Your task to perform on an android device: toggle location history Image 0: 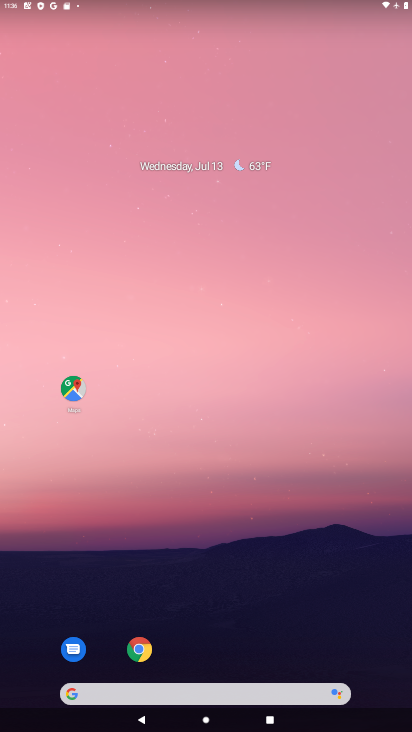
Step 0: drag from (231, 616) to (222, 208)
Your task to perform on an android device: toggle location history Image 1: 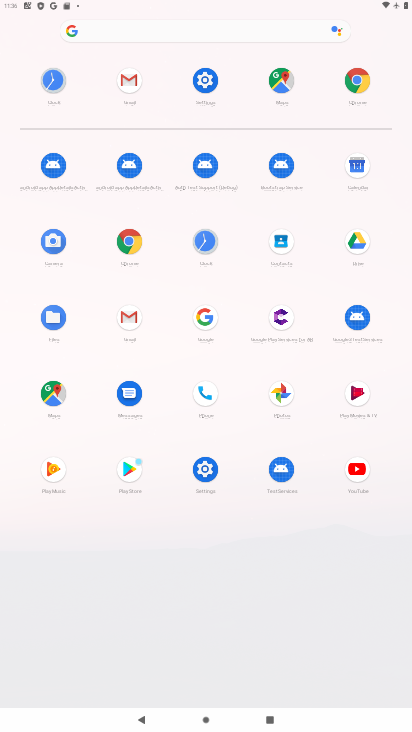
Step 1: click (193, 64)
Your task to perform on an android device: toggle location history Image 2: 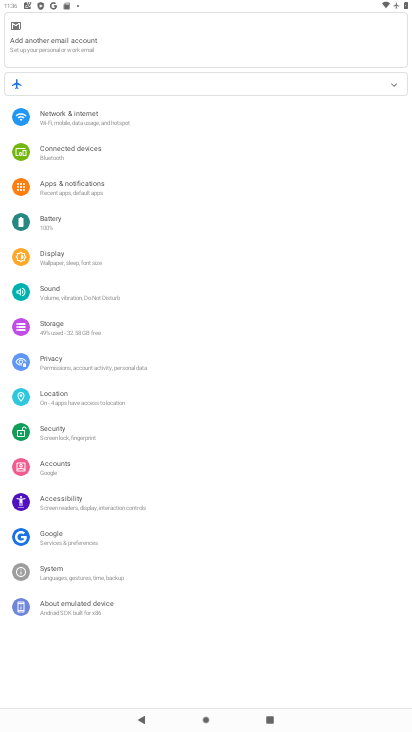
Step 2: click (86, 392)
Your task to perform on an android device: toggle location history Image 3: 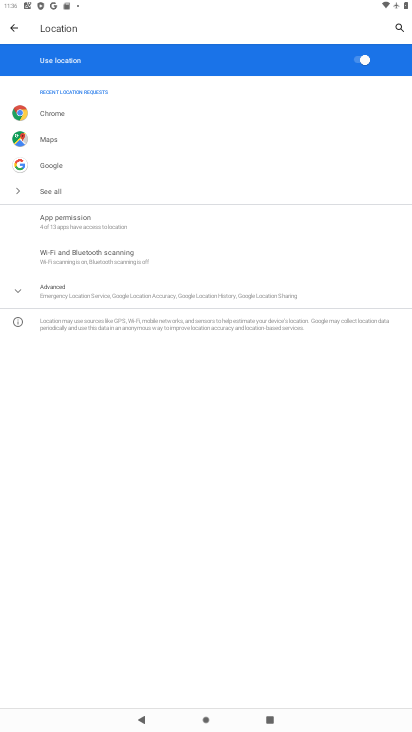
Step 3: click (134, 299)
Your task to perform on an android device: toggle location history Image 4: 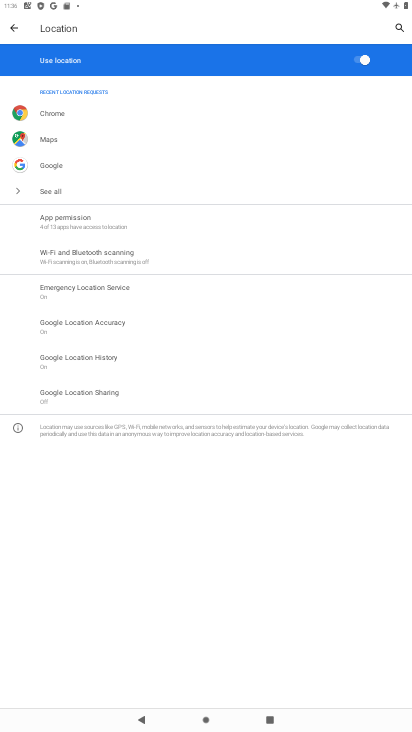
Step 4: click (124, 349)
Your task to perform on an android device: toggle location history Image 5: 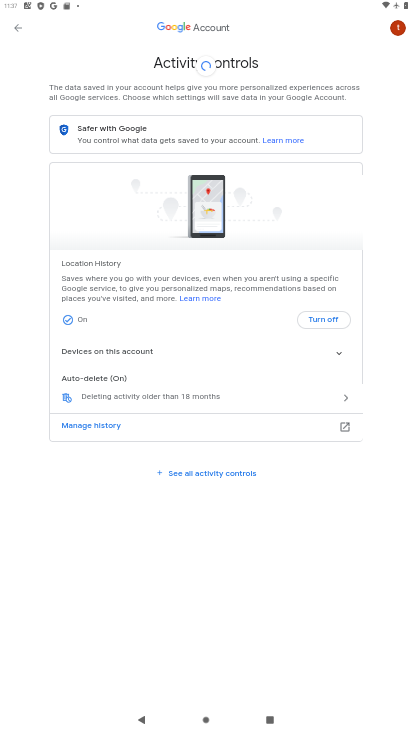
Step 5: click (317, 325)
Your task to perform on an android device: toggle location history Image 6: 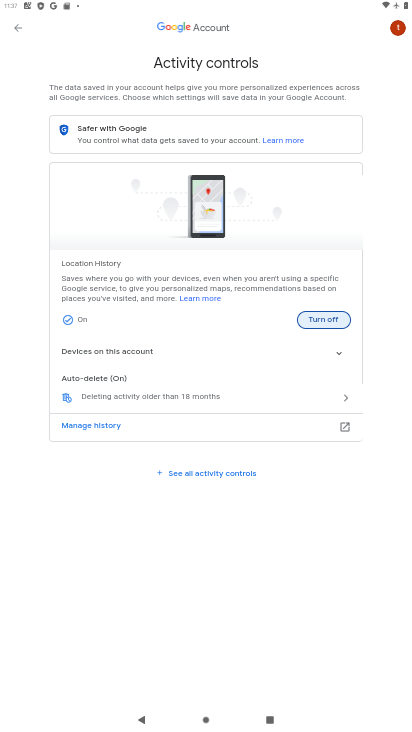
Step 6: task complete